Your task to perform on an android device: change text size in settings app Image 0: 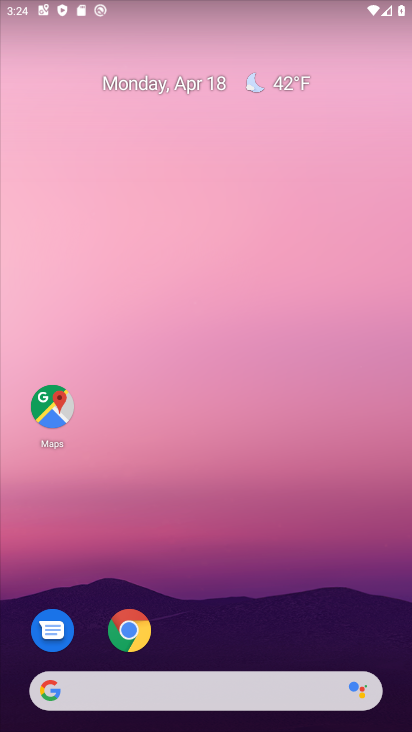
Step 0: drag from (330, 602) to (268, 33)
Your task to perform on an android device: change text size in settings app Image 1: 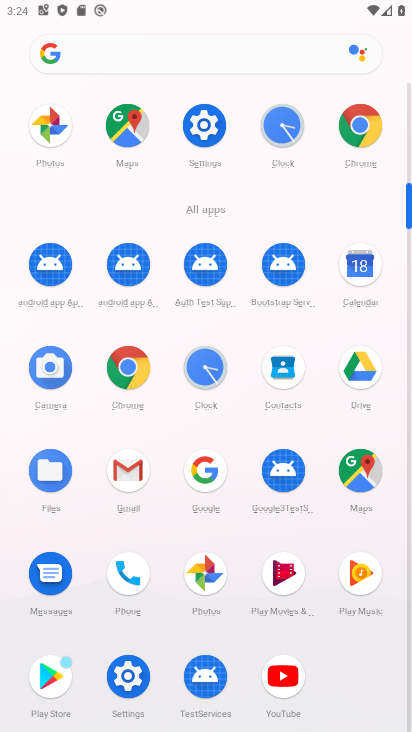
Step 1: click (211, 635)
Your task to perform on an android device: change text size in settings app Image 2: 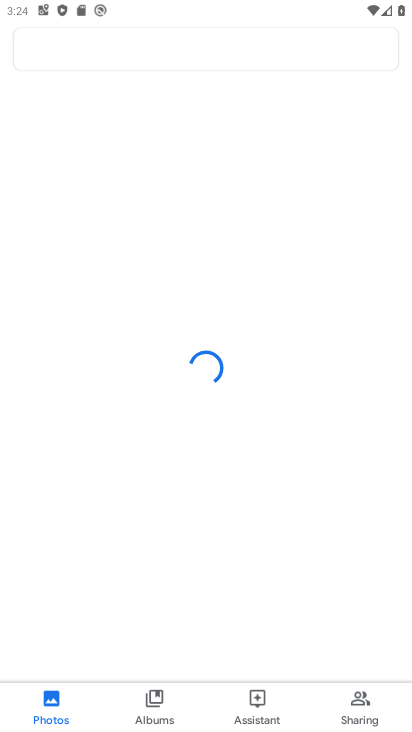
Step 2: press back button
Your task to perform on an android device: change text size in settings app Image 3: 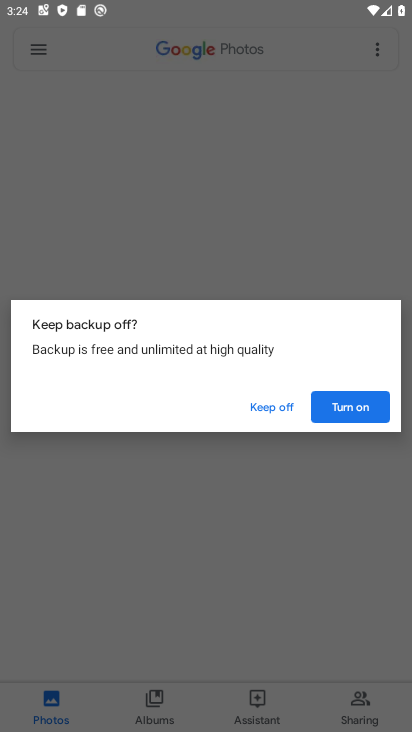
Step 3: press back button
Your task to perform on an android device: change text size in settings app Image 4: 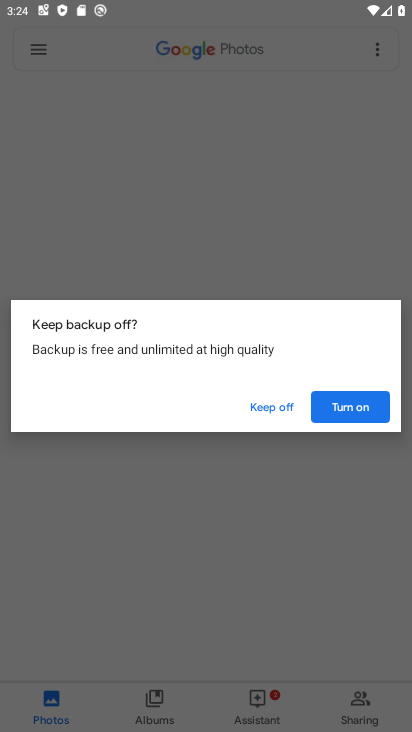
Step 4: press home button
Your task to perform on an android device: change text size in settings app Image 5: 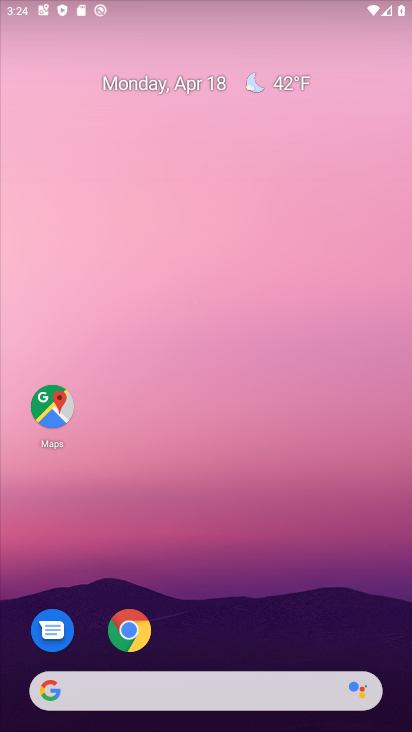
Step 5: drag from (288, 546) to (229, 16)
Your task to perform on an android device: change text size in settings app Image 6: 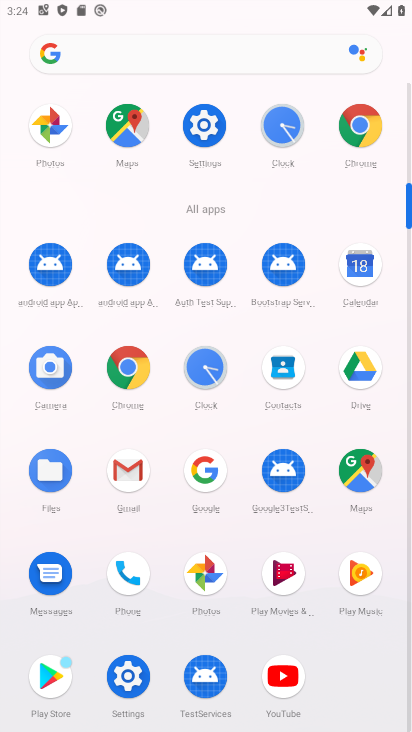
Step 6: click (118, 669)
Your task to perform on an android device: change text size in settings app Image 7: 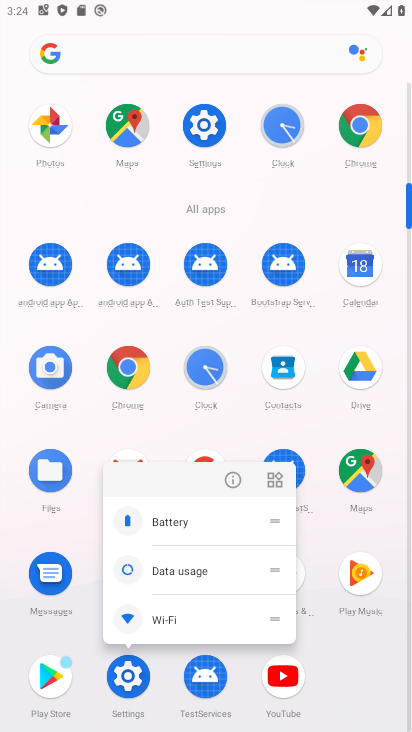
Step 7: click (137, 674)
Your task to perform on an android device: change text size in settings app Image 8: 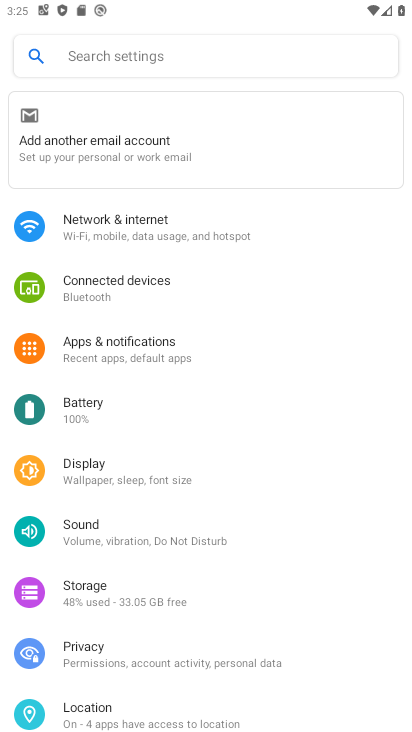
Step 8: click (134, 471)
Your task to perform on an android device: change text size in settings app Image 9: 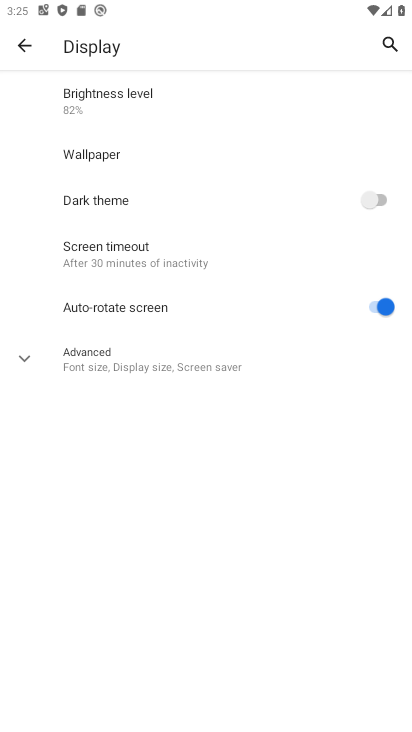
Step 9: click (182, 357)
Your task to perform on an android device: change text size in settings app Image 10: 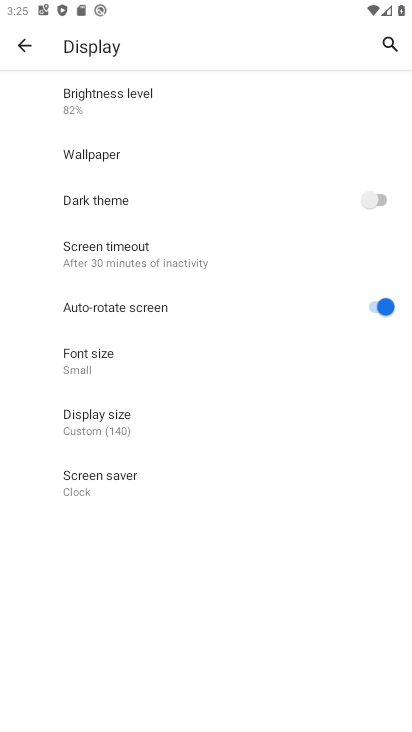
Step 10: click (91, 361)
Your task to perform on an android device: change text size in settings app Image 11: 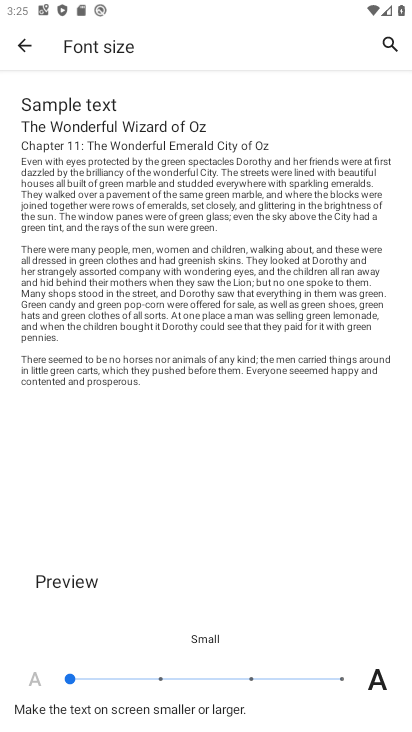
Step 11: task complete